Your task to perform on an android device: Open the stopwatch Image 0: 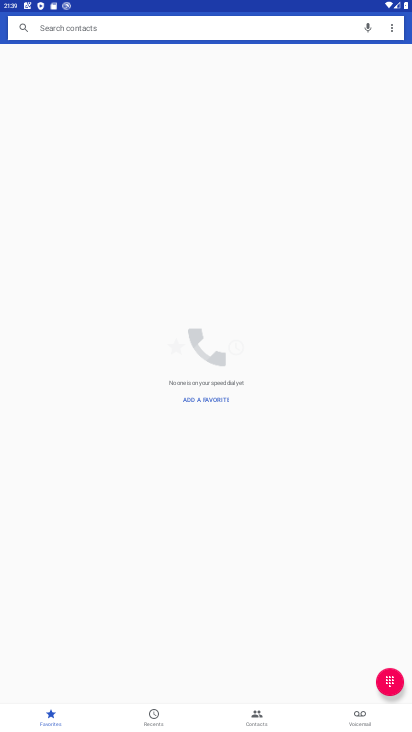
Step 0: press home button
Your task to perform on an android device: Open the stopwatch Image 1: 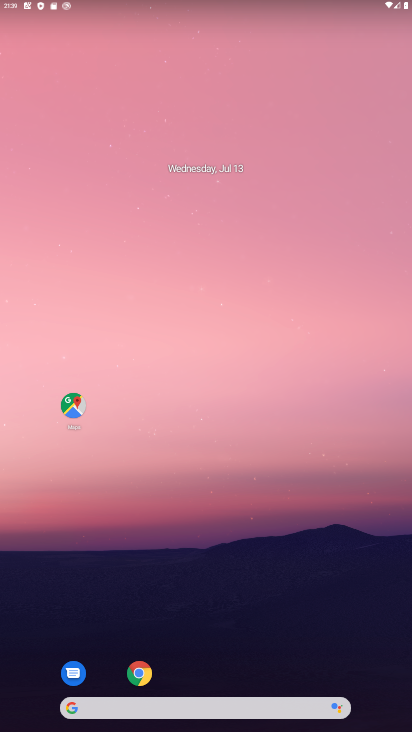
Step 1: drag from (213, 671) to (192, 52)
Your task to perform on an android device: Open the stopwatch Image 2: 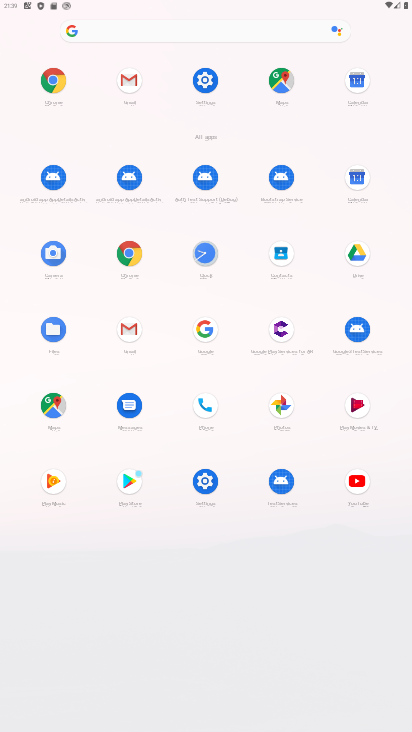
Step 2: click (208, 261)
Your task to perform on an android device: Open the stopwatch Image 3: 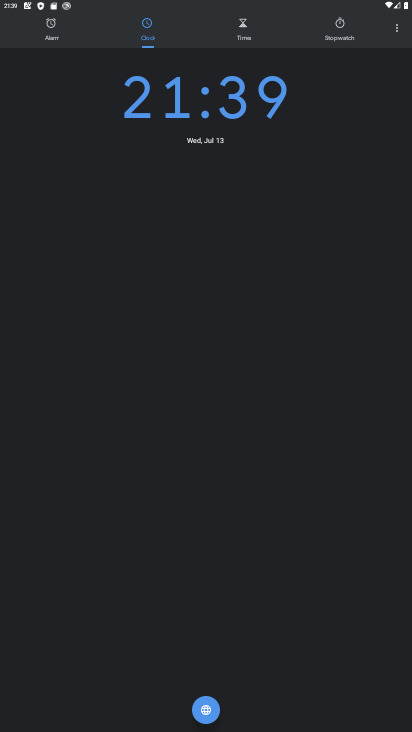
Step 3: click (327, 34)
Your task to perform on an android device: Open the stopwatch Image 4: 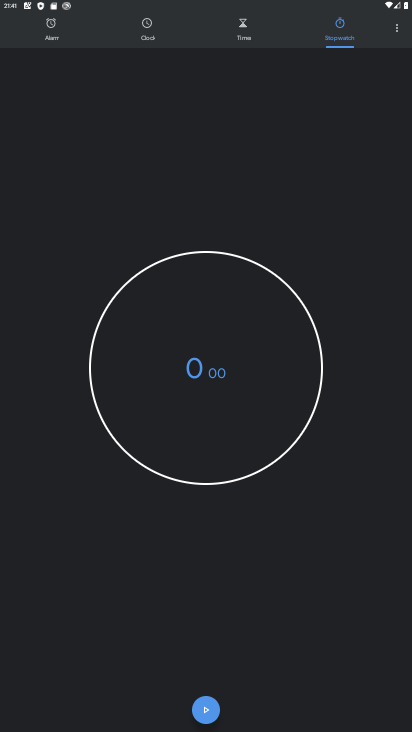
Step 4: task complete